Your task to perform on an android device: Turn on the flashlight Image 0: 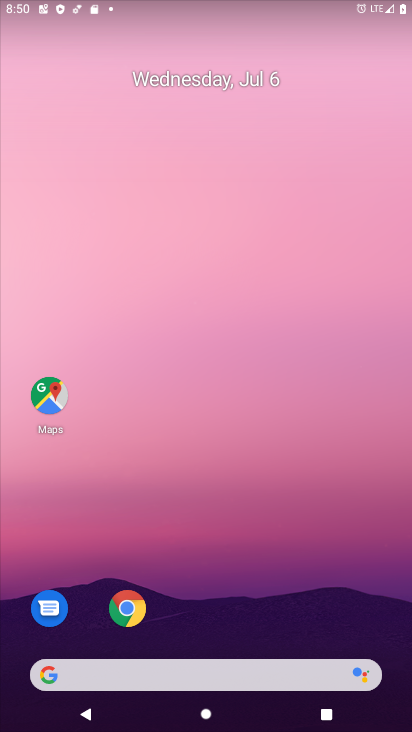
Step 0: drag from (368, 654) to (229, 20)
Your task to perform on an android device: Turn on the flashlight Image 1: 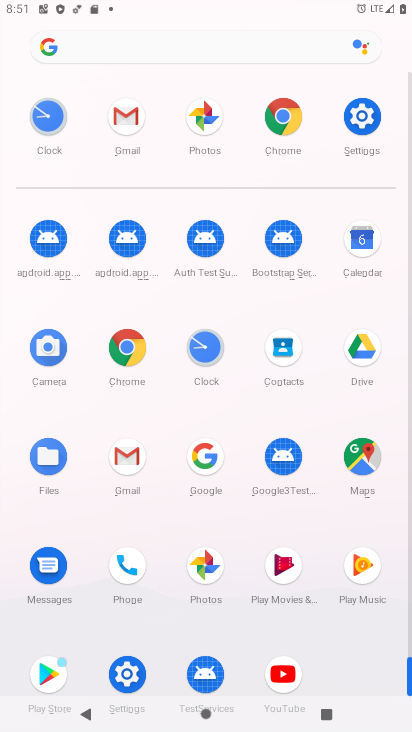
Step 1: click (363, 124)
Your task to perform on an android device: Turn on the flashlight Image 2: 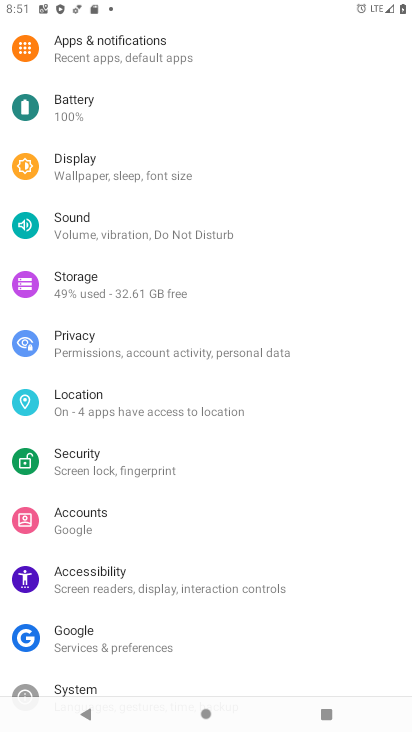
Step 2: task complete